Your task to perform on an android device: Open Youtube and go to the subscriptions tab Image 0: 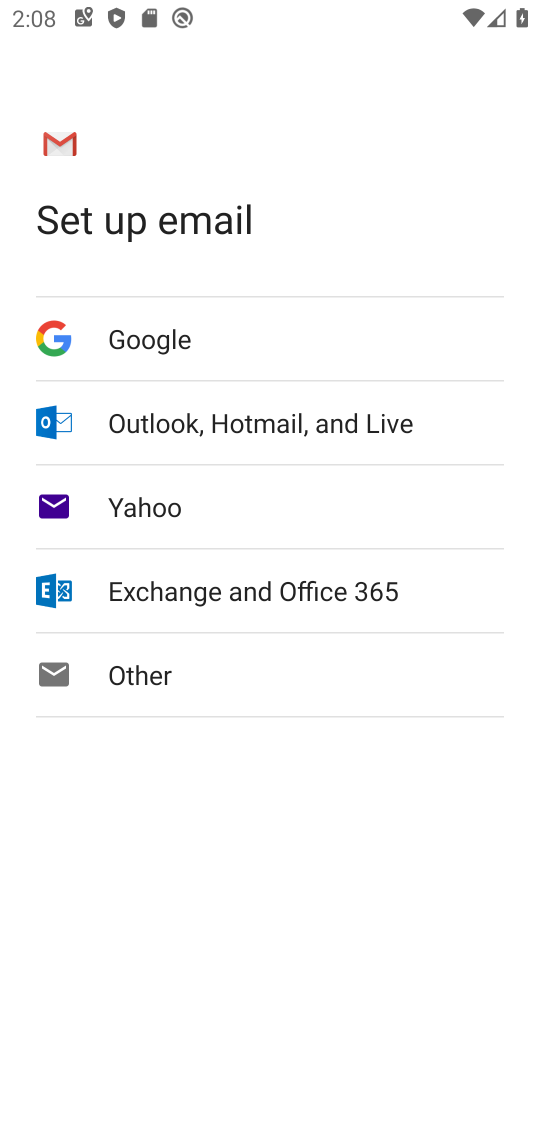
Step 0: press back button
Your task to perform on an android device: Open Youtube and go to the subscriptions tab Image 1: 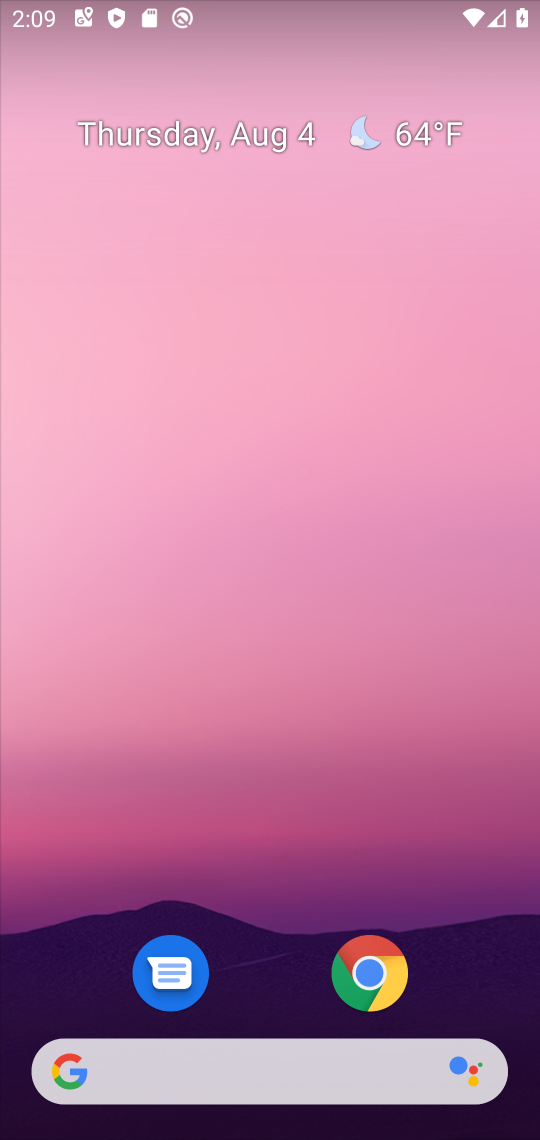
Step 1: drag from (326, 1028) to (234, 1)
Your task to perform on an android device: Open Youtube and go to the subscriptions tab Image 2: 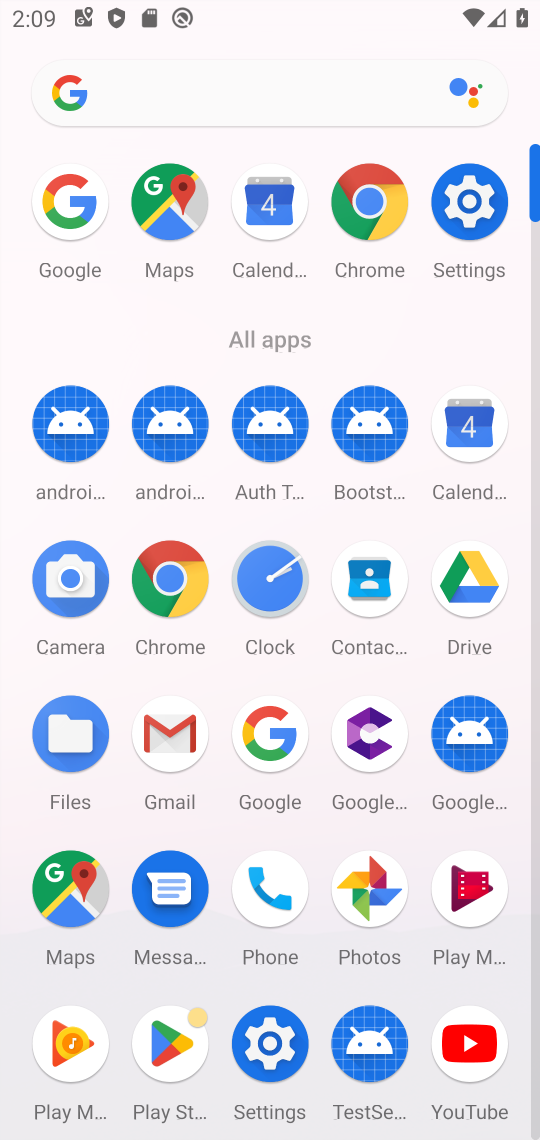
Step 2: click (469, 1048)
Your task to perform on an android device: Open Youtube and go to the subscriptions tab Image 3: 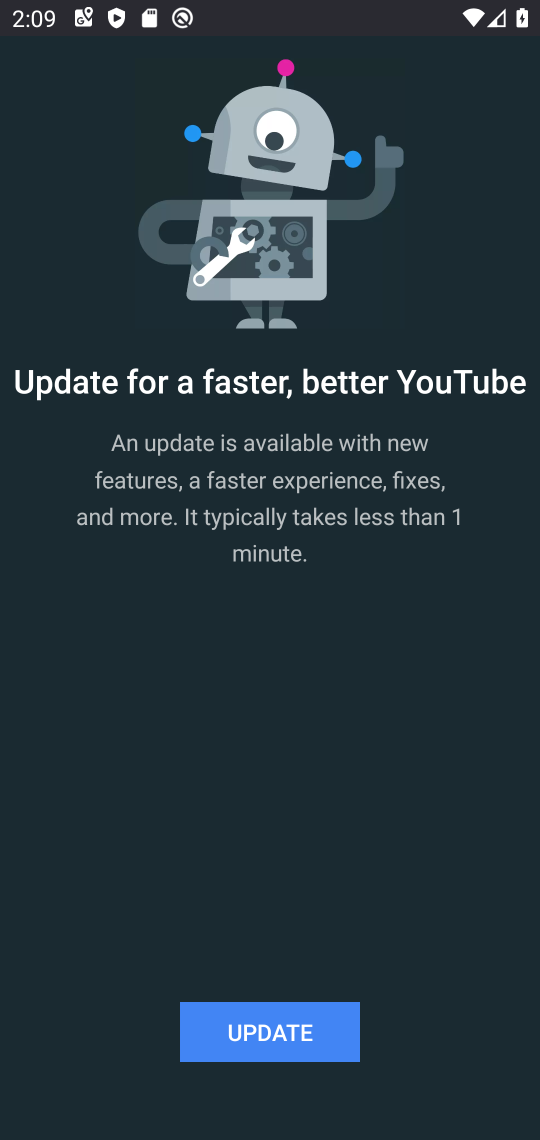
Step 3: click (295, 1042)
Your task to perform on an android device: Open Youtube and go to the subscriptions tab Image 4: 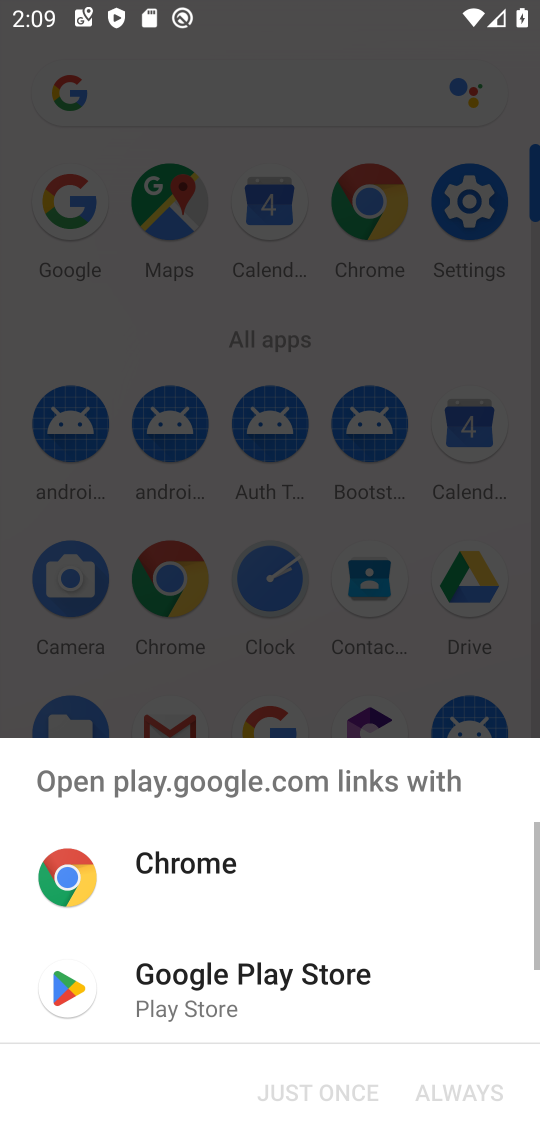
Step 4: click (227, 971)
Your task to perform on an android device: Open Youtube and go to the subscriptions tab Image 5: 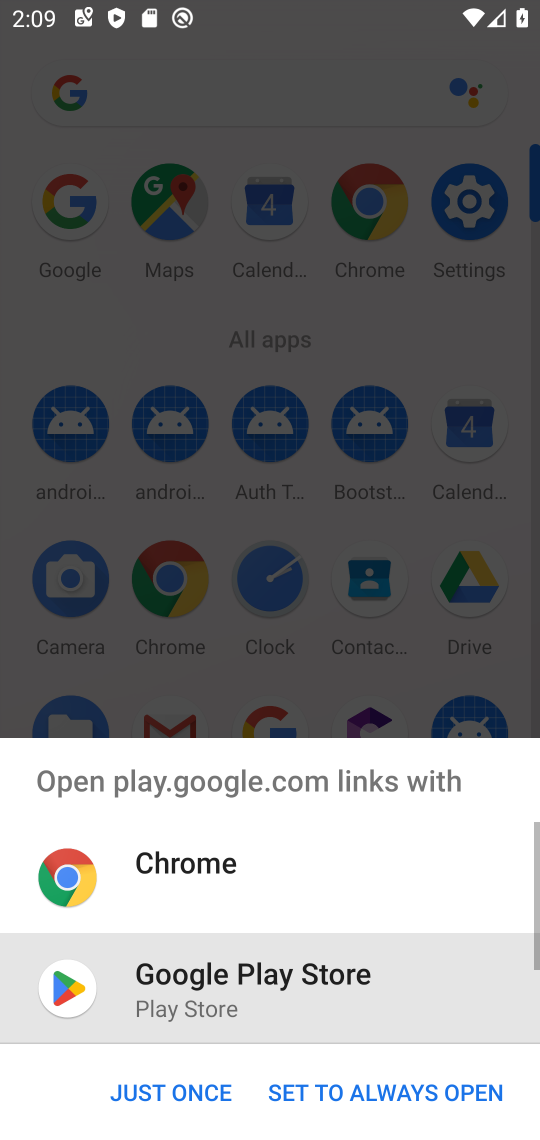
Step 5: click (130, 1086)
Your task to perform on an android device: Open Youtube and go to the subscriptions tab Image 6: 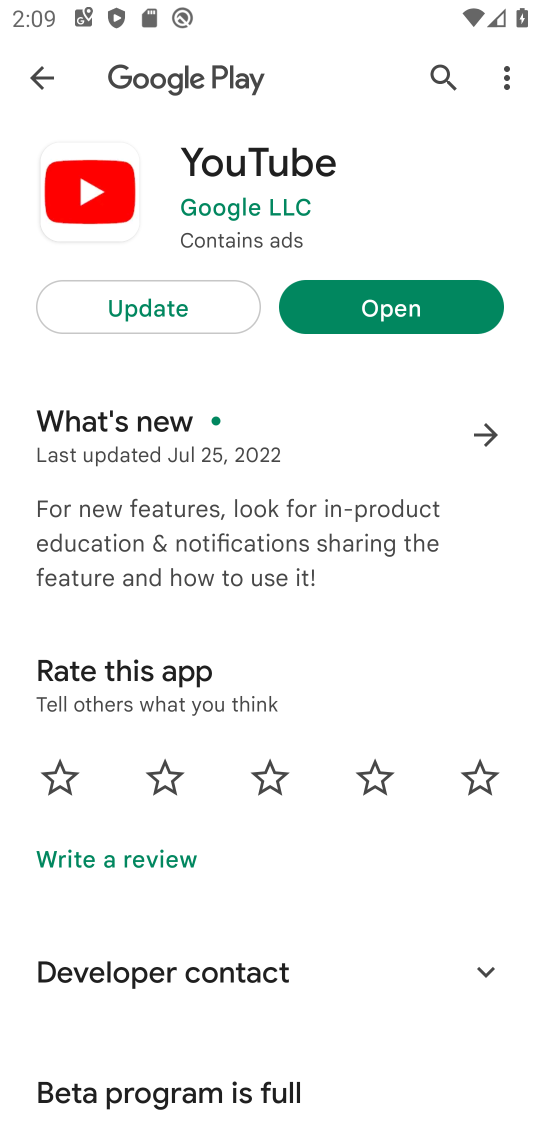
Step 6: click (139, 321)
Your task to perform on an android device: Open Youtube and go to the subscriptions tab Image 7: 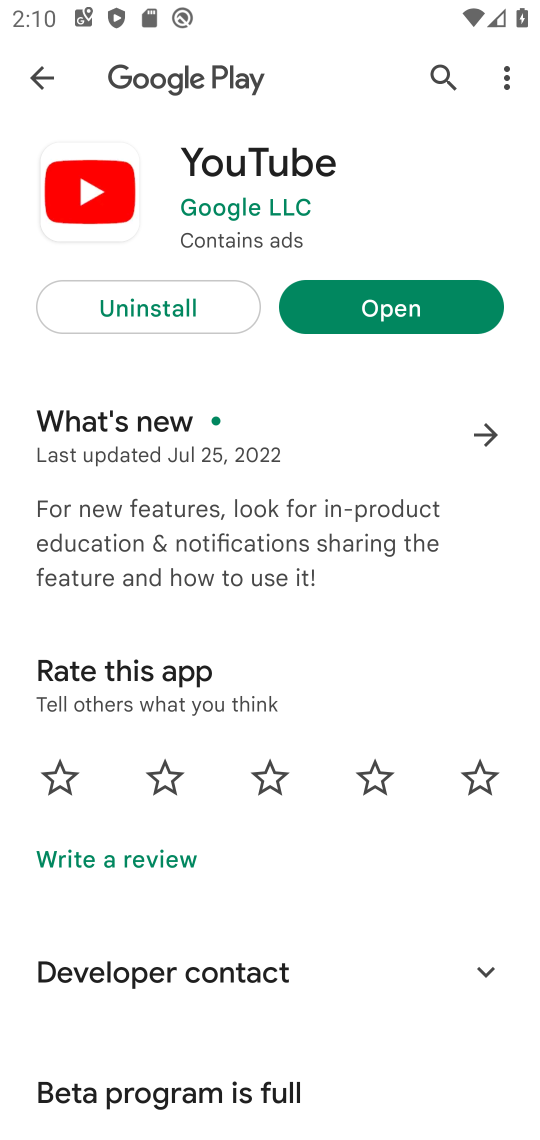
Step 7: click (392, 321)
Your task to perform on an android device: Open Youtube and go to the subscriptions tab Image 8: 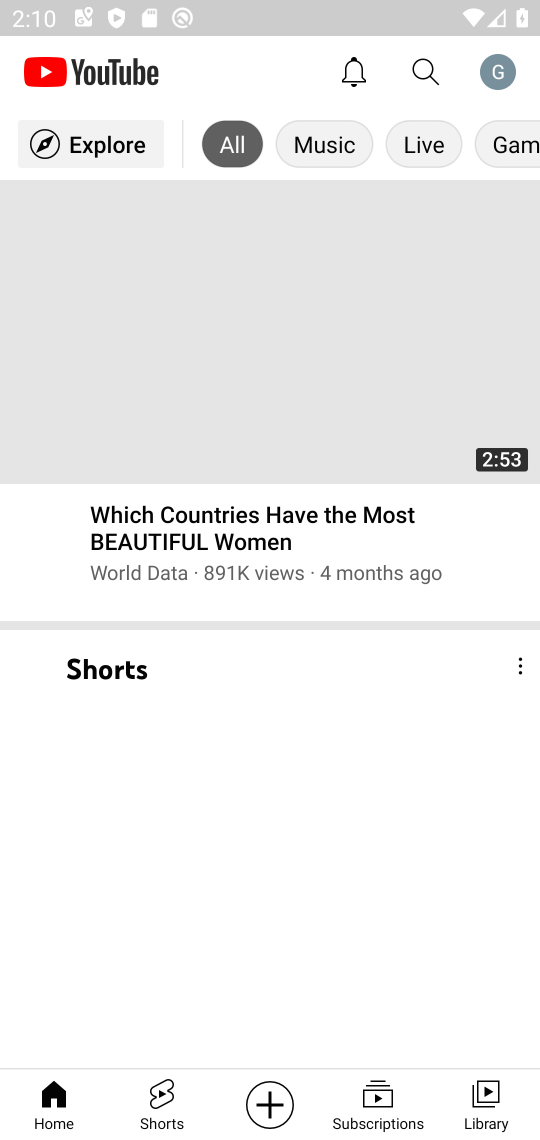
Step 8: click (369, 1098)
Your task to perform on an android device: Open Youtube and go to the subscriptions tab Image 9: 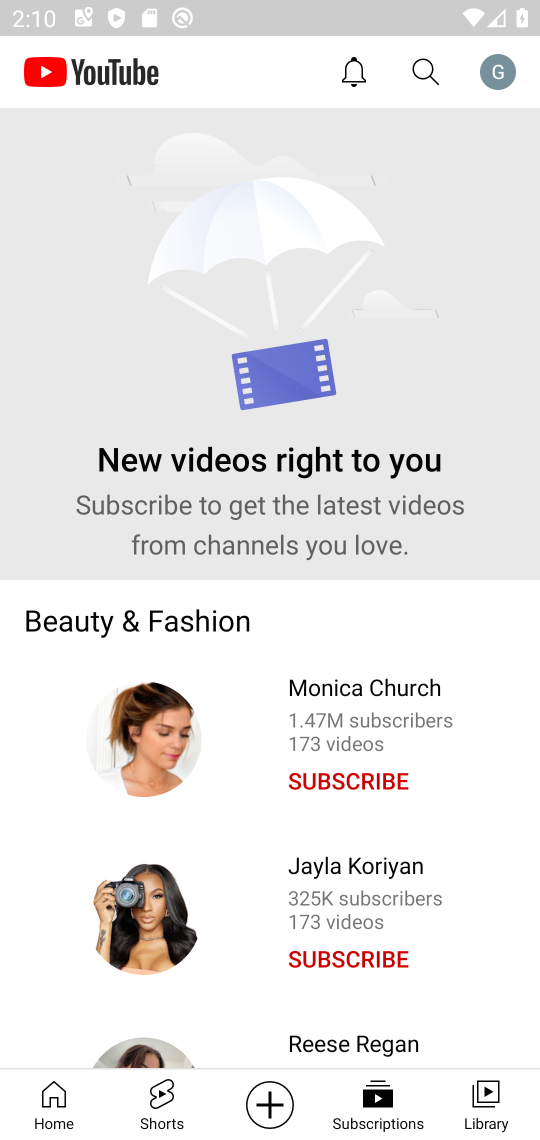
Step 9: task complete